Your task to perform on an android device: open sync settings in chrome Image 0: 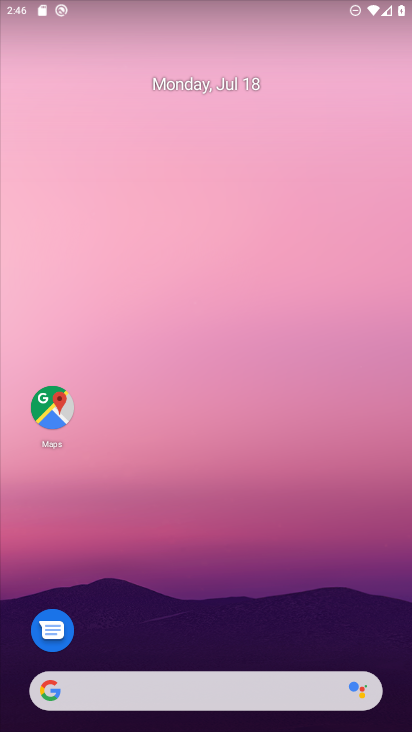
Step 0: drag from (261, 692) to (311, 95)
Your task to perform on an android device: open sync settings in chrome Image 1: 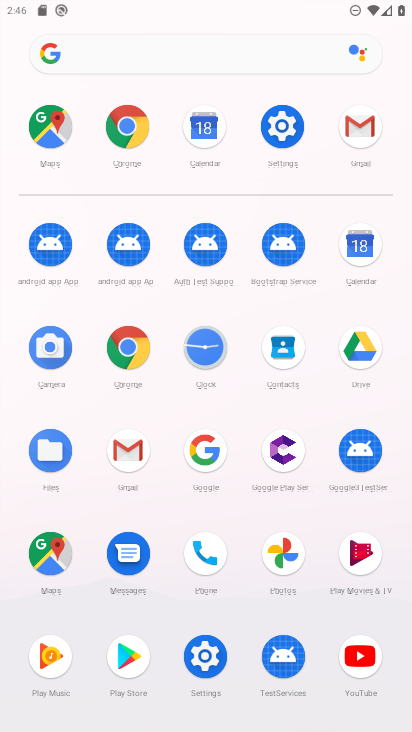
Step 1: click (131, 343)
Your task to perform on an android device: open sync settings in chrome Image 2: 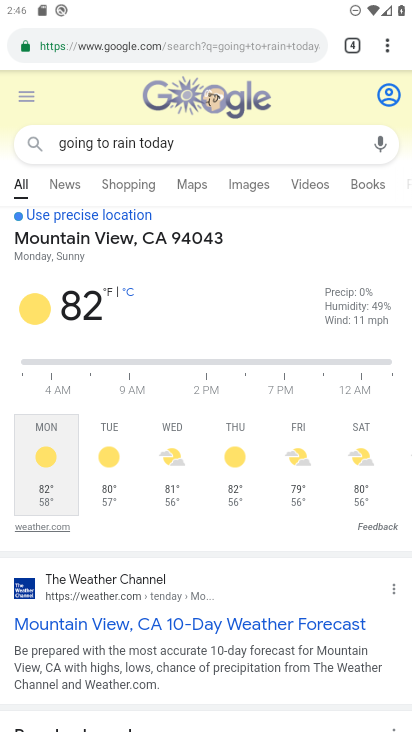
Step 2: click (384, 50)
Your task to perform on an android device: open sync settings in chrome Image 3: 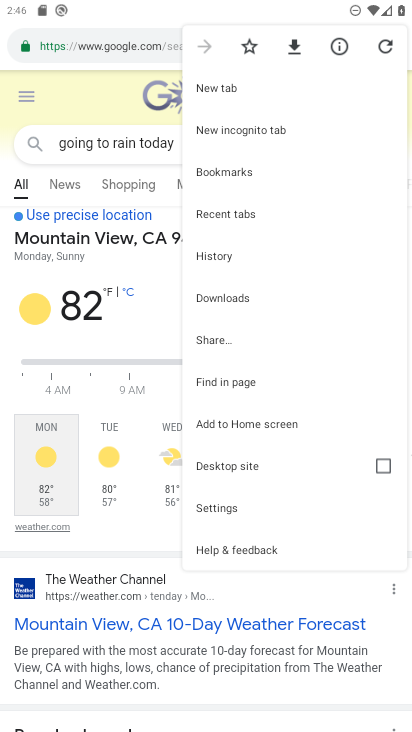
Step 3: click (244, 510)
Your task to perform on an android device: open sync settings in chrome Image 4: 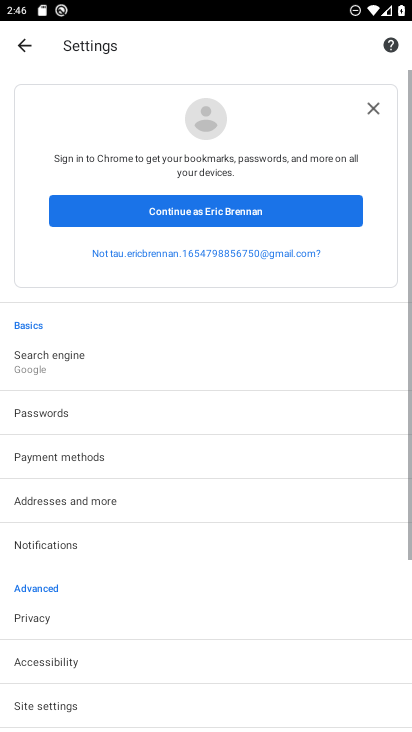
Step 4: drag from (294, 629) to (334, 159)
Your task to perform on an android device: open sync settings in chrome Image 5: 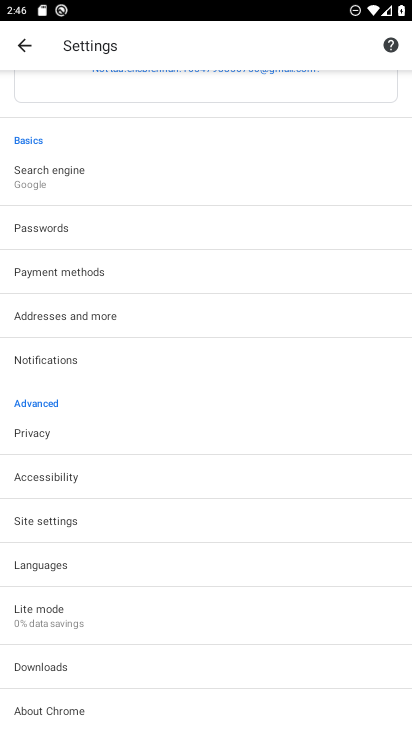
Step 5: click (70, 521)
Your task to perform on an android device: open sync settings in chrome Image 6: 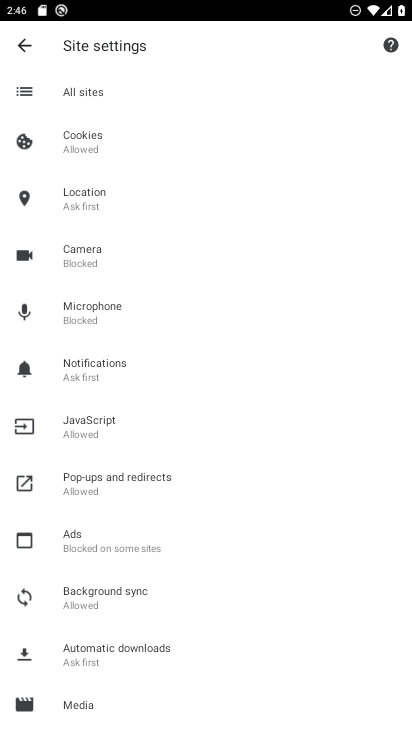
Step 6: click (127, 599)
Your task to perform on an android device: open sync settings in chrome Image 7: 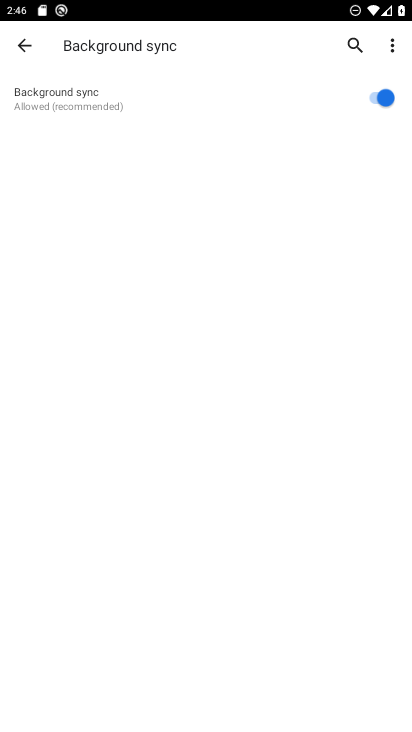
Step 7: task complete